Your task to perform on an android device: turn on airplane mode Image 0: 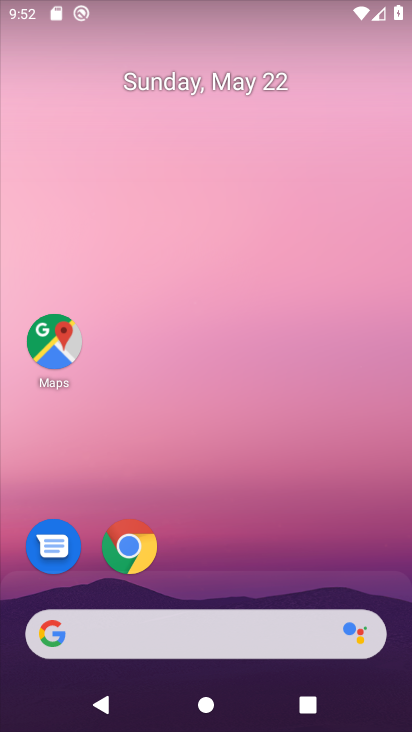
Step 0: drag from (243, 575) to (256, 6)
Your task to perform on an android device: turn on airplane mode Image 1: 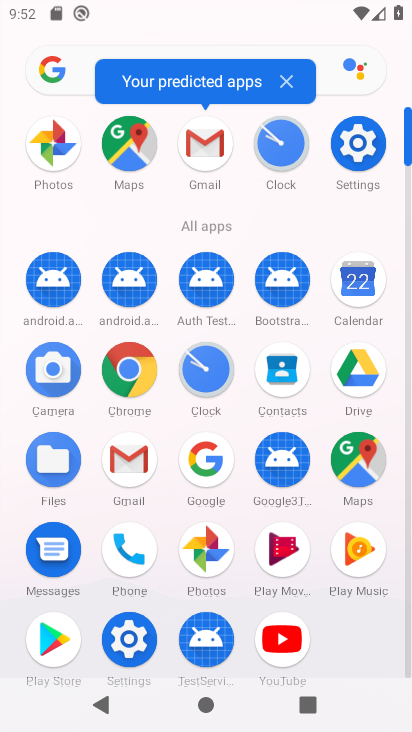
Step 1: click (361, 138)
Your task to perform on an android device: turn on airplane mode Image 2: 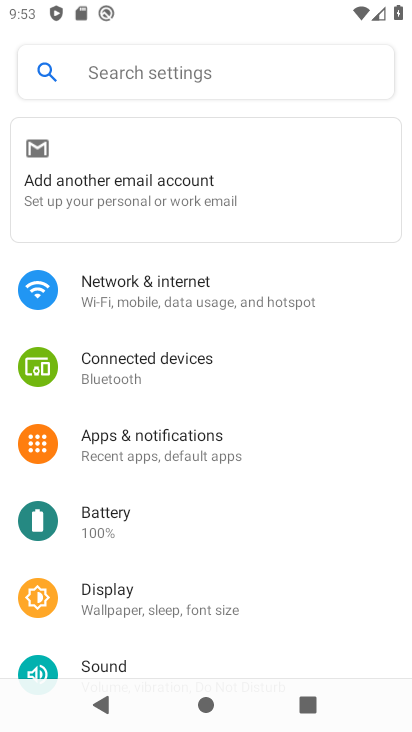
Step 2: click (203, 287)
Your task to perform on an android device: turn on airplane mode Image 3: 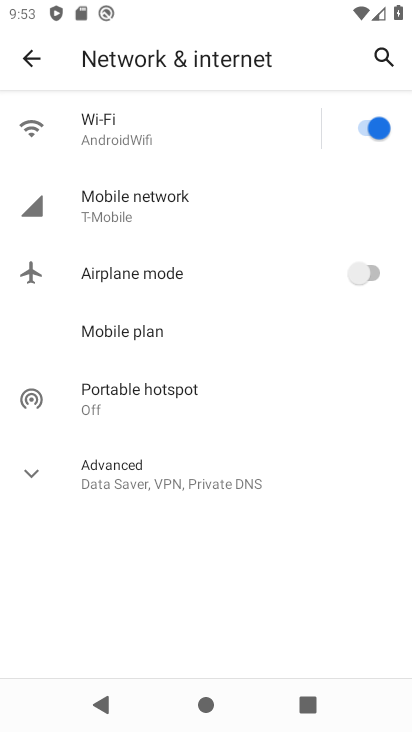
Step 3: click (34, 475)
Your task to perform on an android device: turn on airplane mode Image 4: 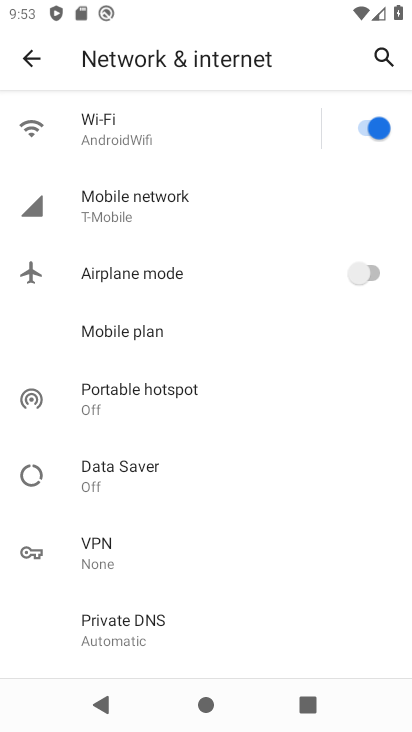
Step 4: drag from (219, 539) to (248, 133)
Your task to perform on an android device: turn on airplane mode Image 5: 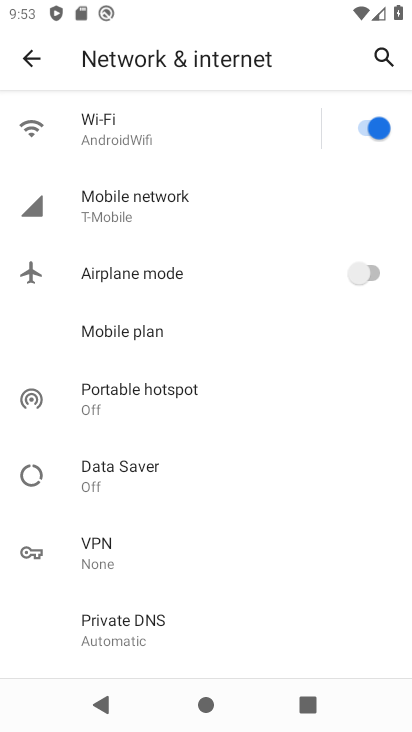
Step 5: click (373, 283)
Your task to perform on an android device: turn on airplane mode Image 6: 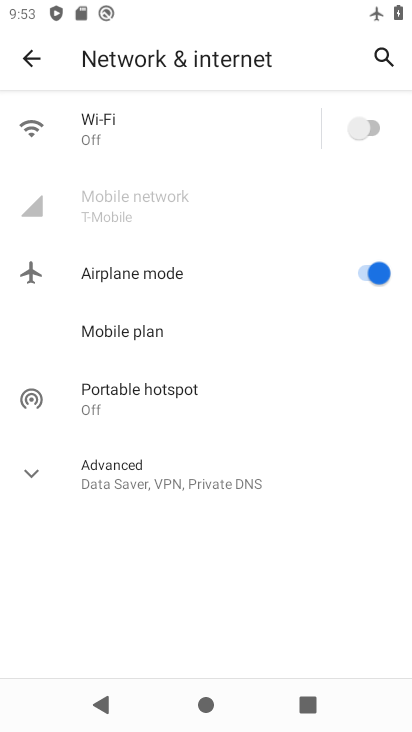
Step 6: task complete